Your task to perform on an android device: turn on sleep mode Image 0: 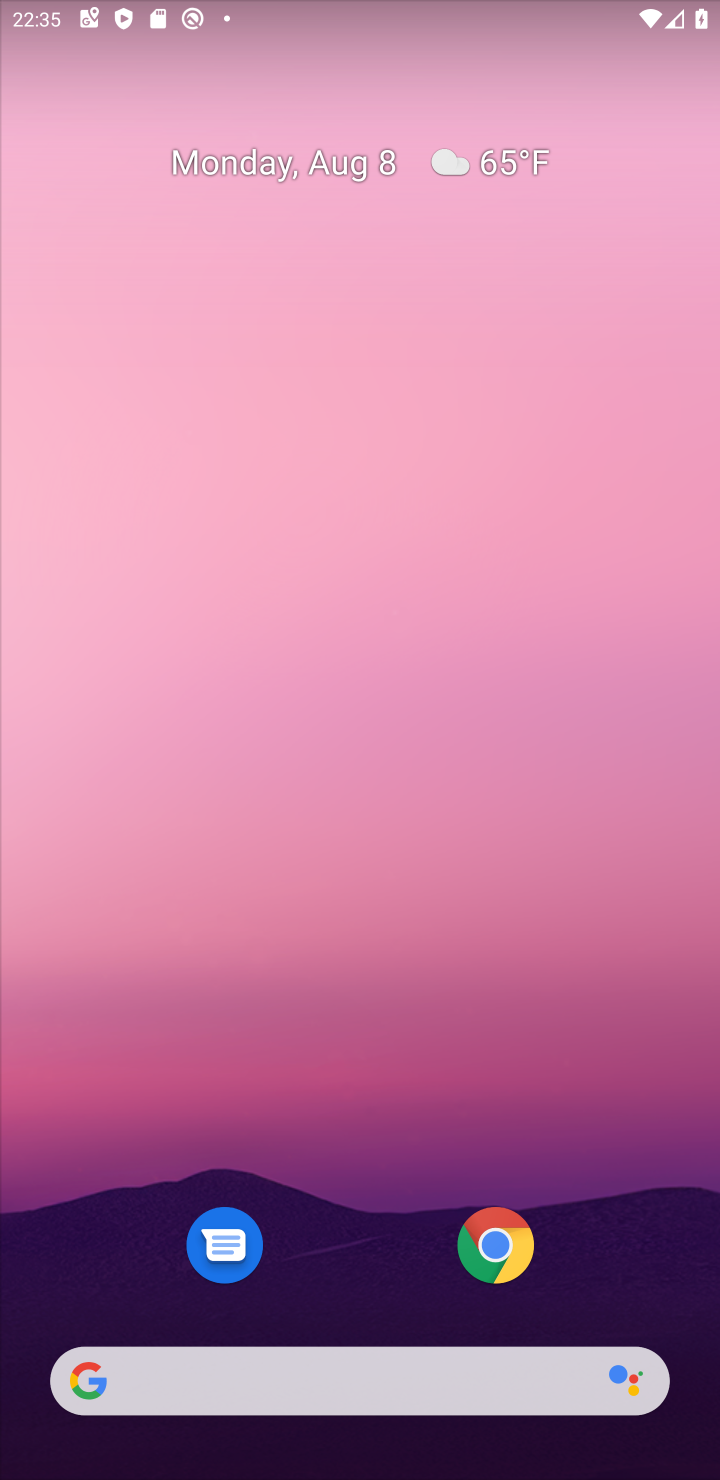
Step 0: press home button
Your task to perform on an android device: turn on sleep mode Image 1: 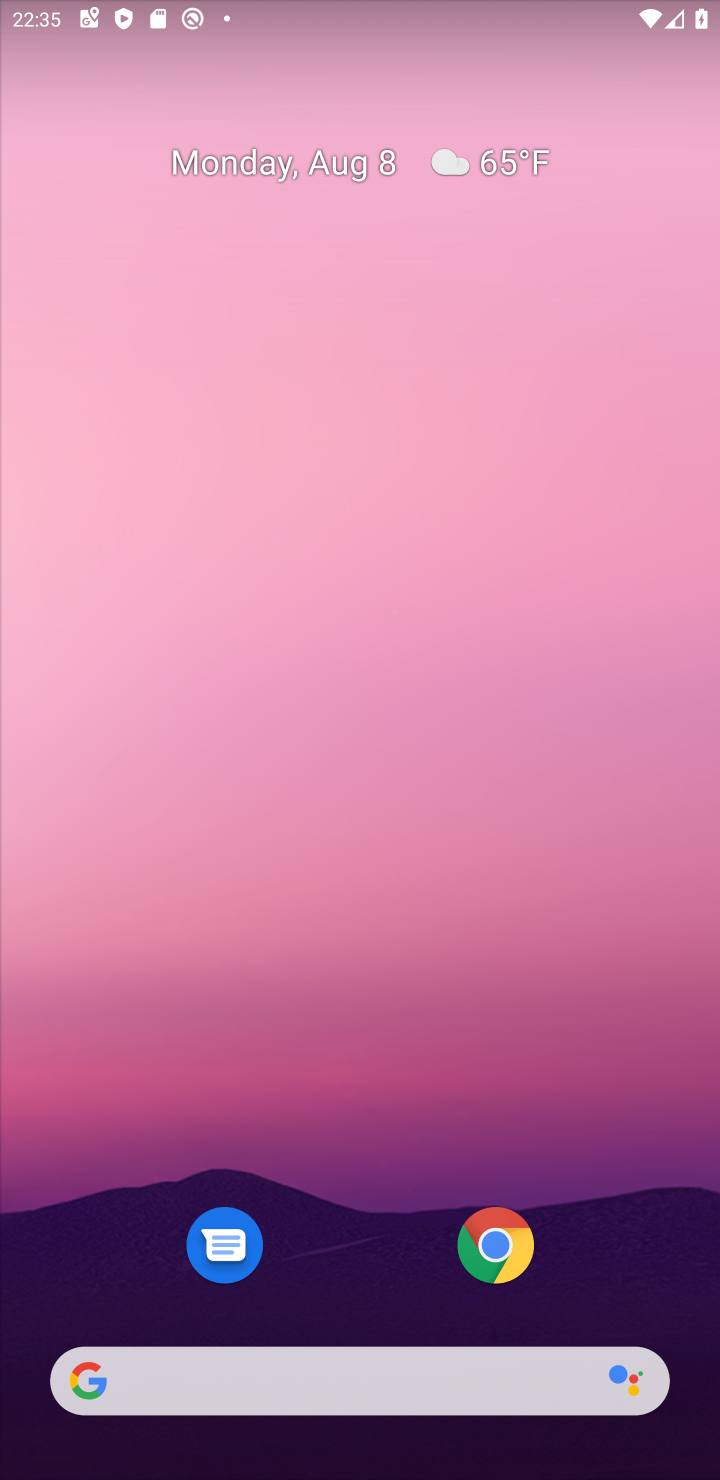
Step 1: drag from (358, 1121) to (205, 4)
Your task to perform on an android device: turn on sleep mode Image 2: 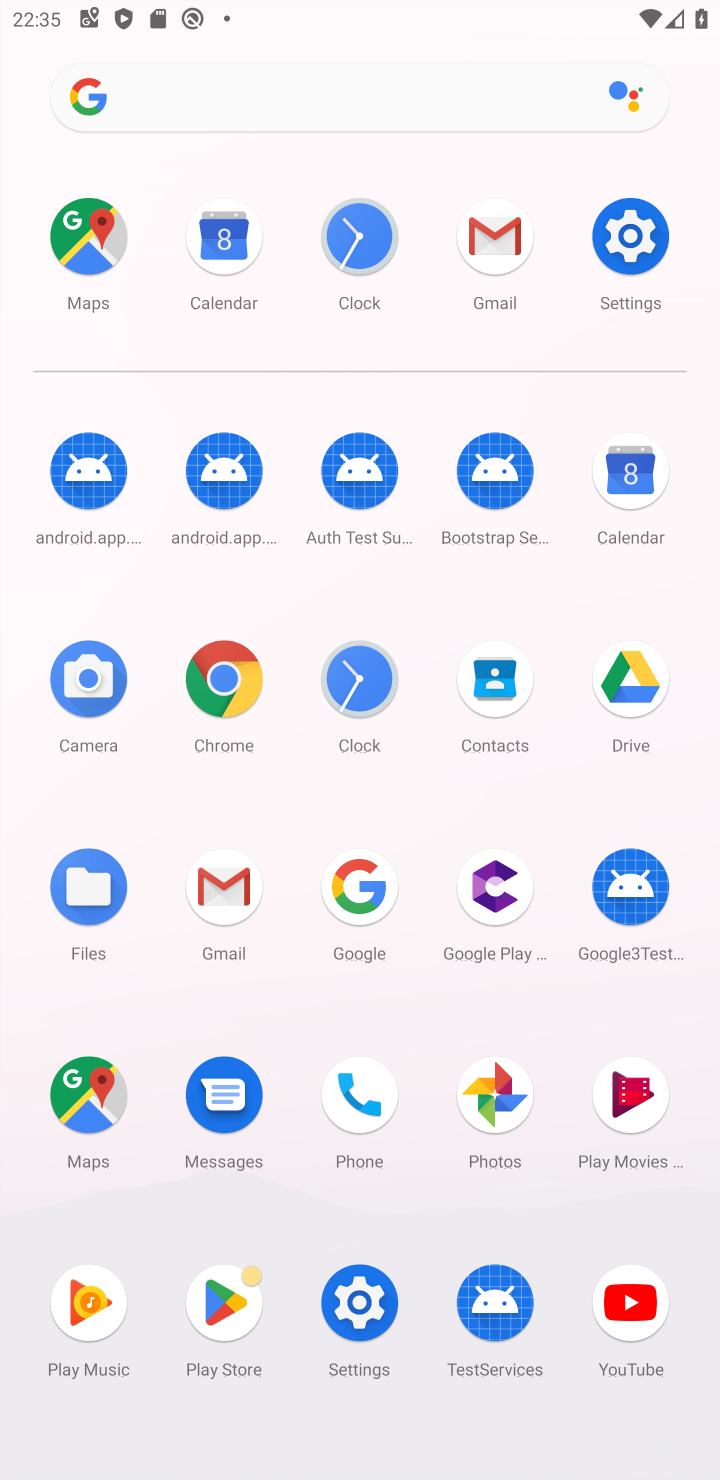
Step 2: click (629, 237)
Your task to perform on an android device: turn on sleep mode Image 3: 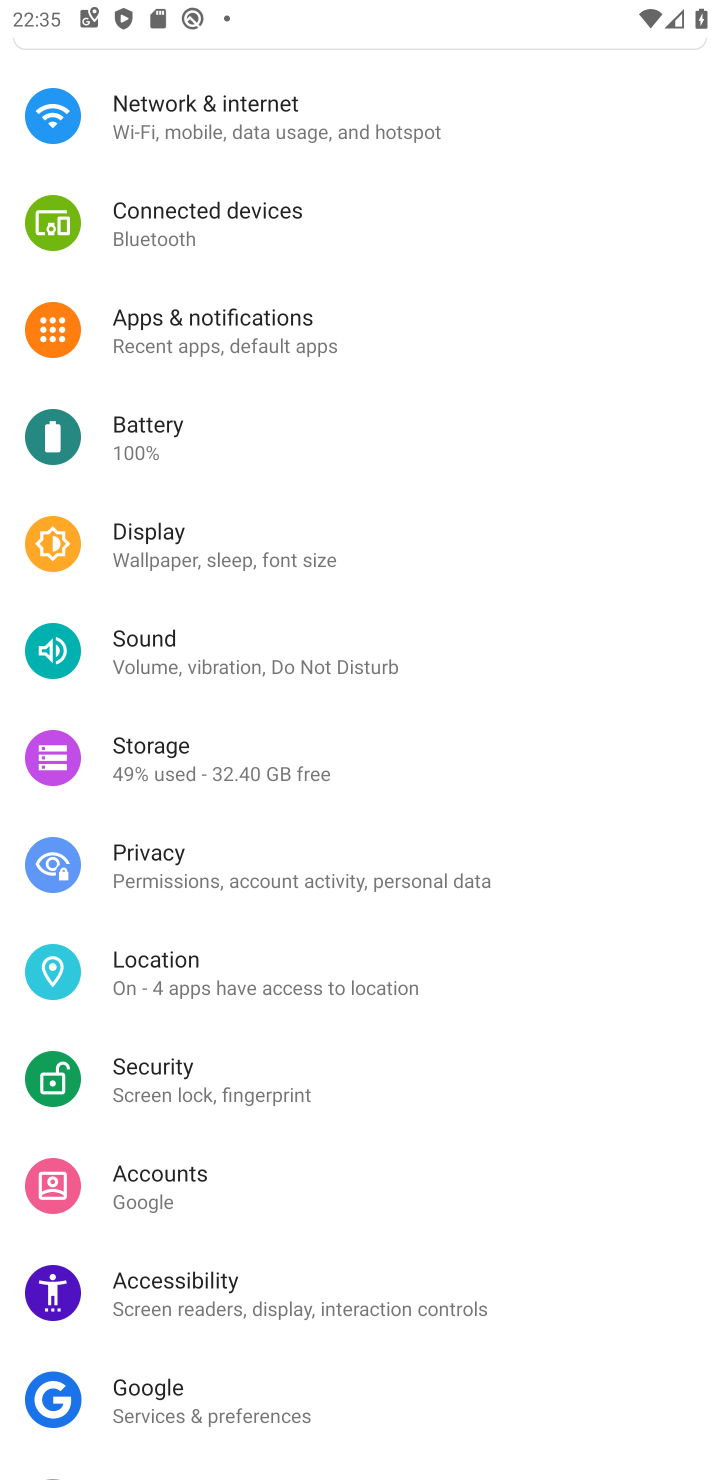
Step 3: click (158, 523)
Your task to perform on an android device: turn on sleep mode Image 4: 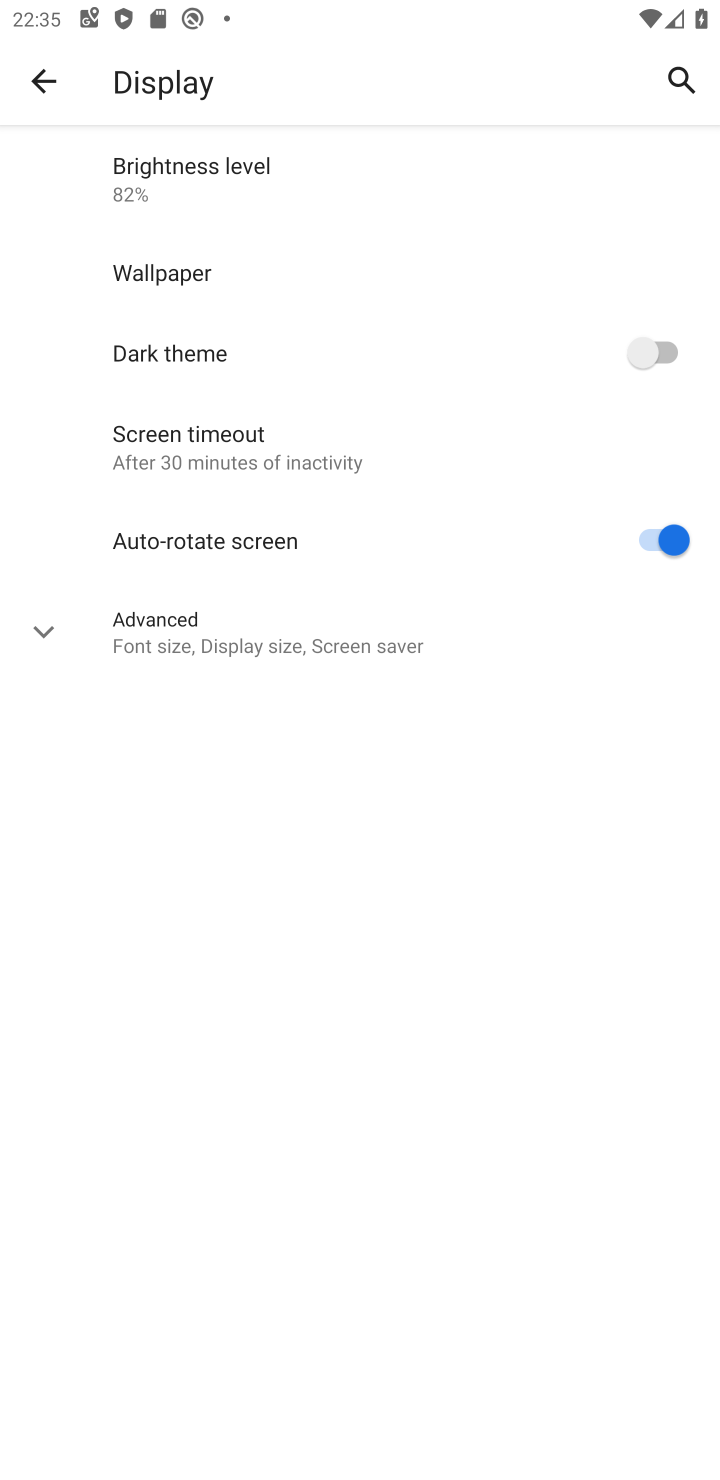
Step 4: task complete